Your task to perform on an android device: turn off location Image 0: 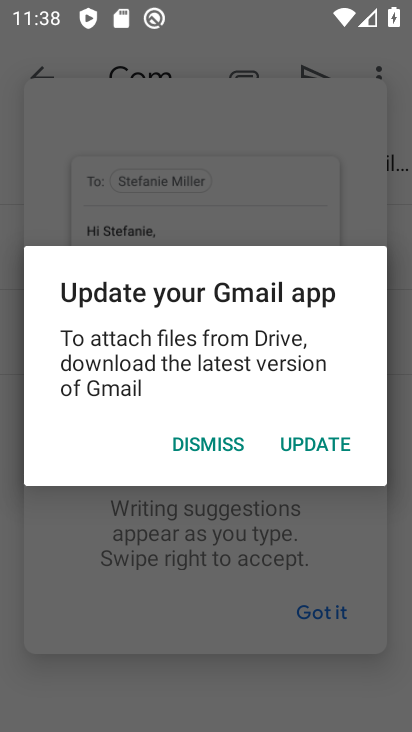
Step 0: press home button
Your task to perform on an android device: turn off location Image 1: 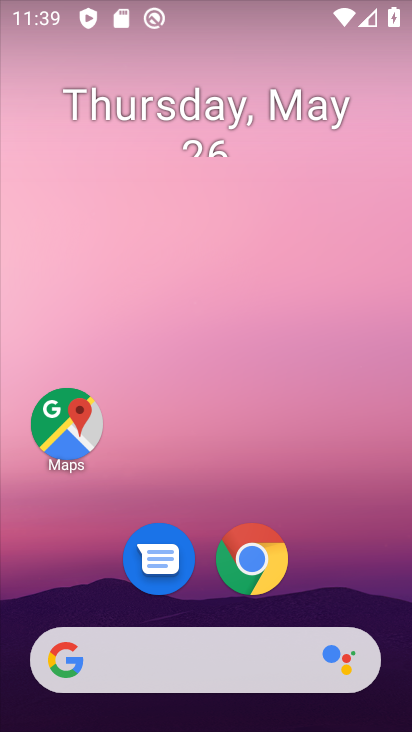
Step 1: drag from (350, 553) to (300, 287)
Your task to perform on an android device: turn off location Image 2: 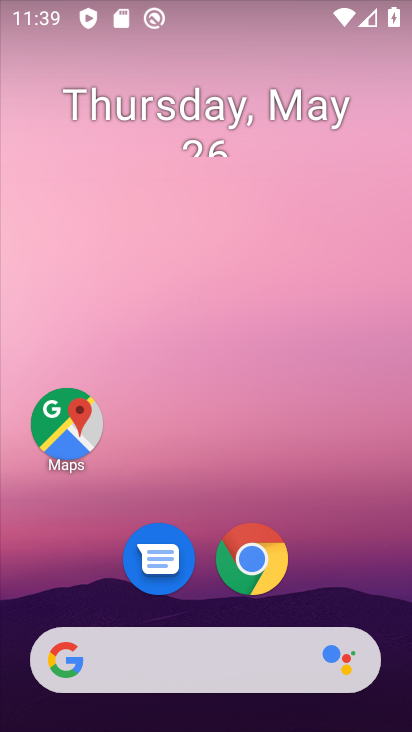
Step 2: drag from (304, 555) to (260, 7)
Your task to perform on an android device: turn off location Image 3: 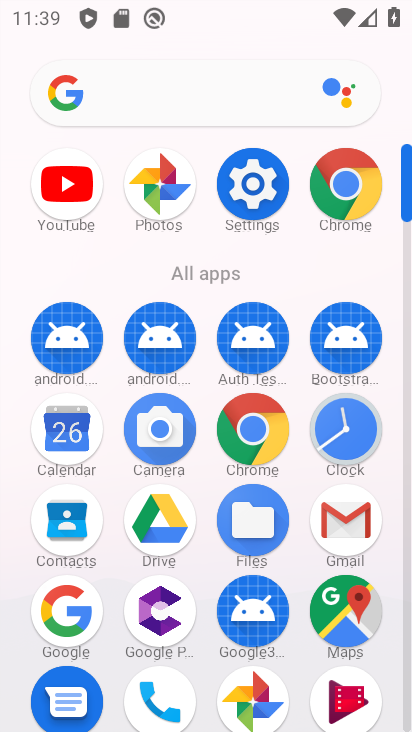
Step 3: click (254, 189)
Your task to perform on an android device: turn off location Image 4: 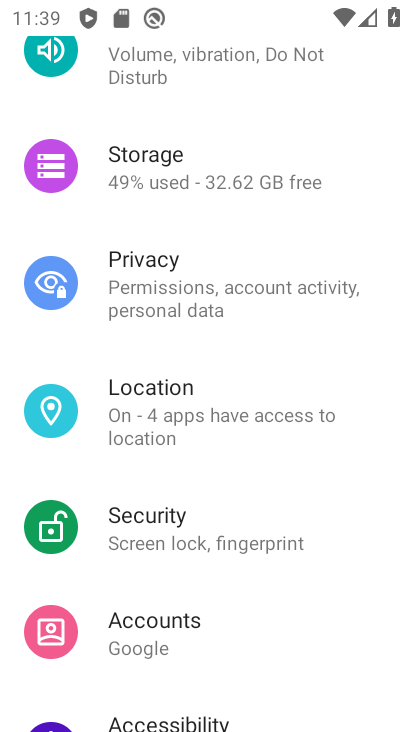
Step 4: click (226, 421)
Your task to perform on an android device: turn off location Image 5: 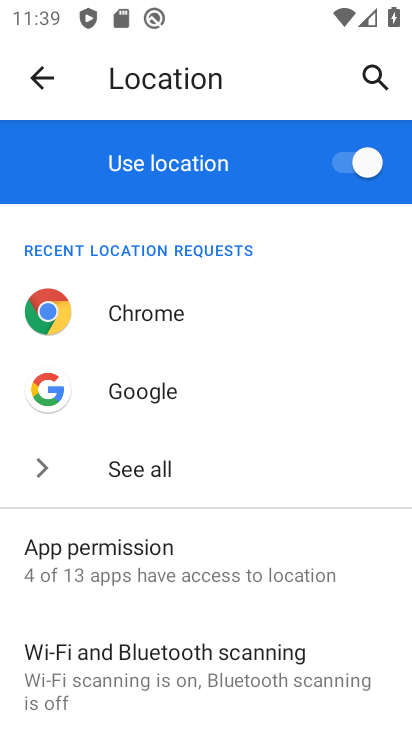
Step 5: drag from (199, 618) to (222, 314)
Your task to perform on an android device: turn off location Image 6: 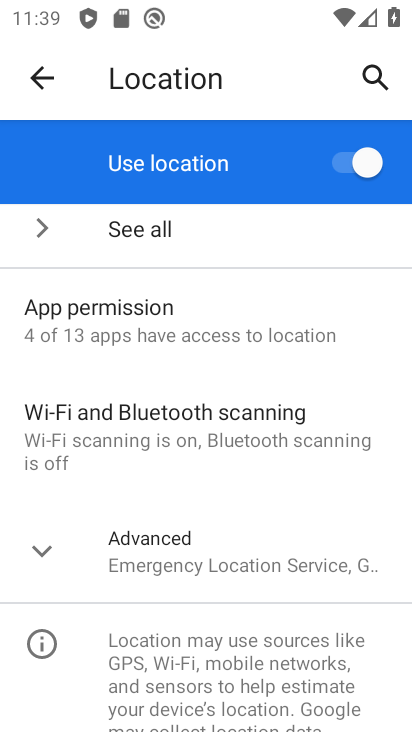
Step 6: click (208, 566)
Your task to perform on an android device: turn off location Image 7: 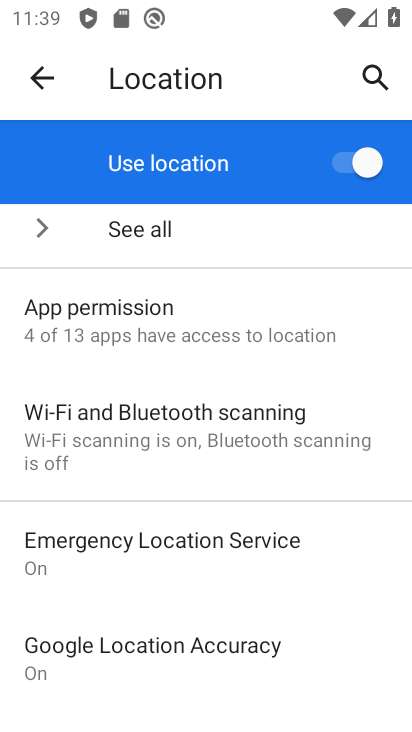
Step 7: click (358, 146)
Your task to perform on an android device: turn off location Image 8: 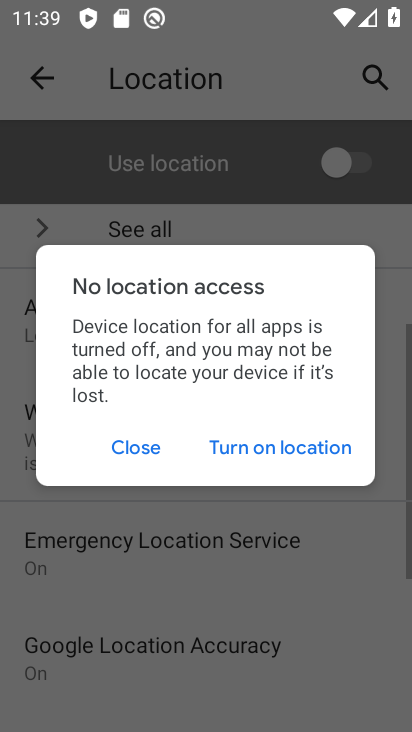
Step 8: task complete